Your task to perform on an android device: open chrome privacy settings Image 0: 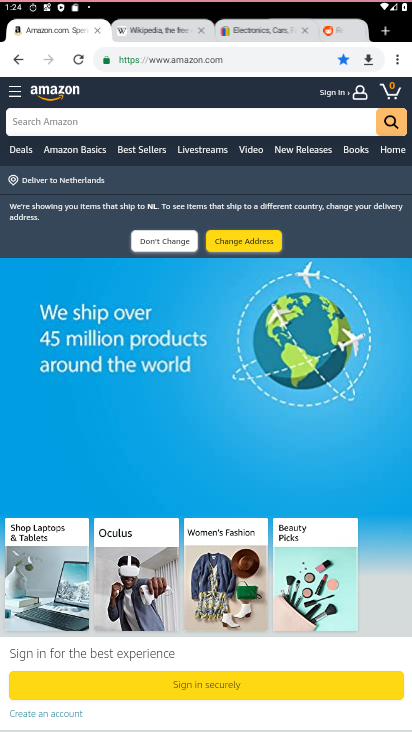
Step 0: press home button
Your task to perform on an android device: open chrome privacy settings Image 1: 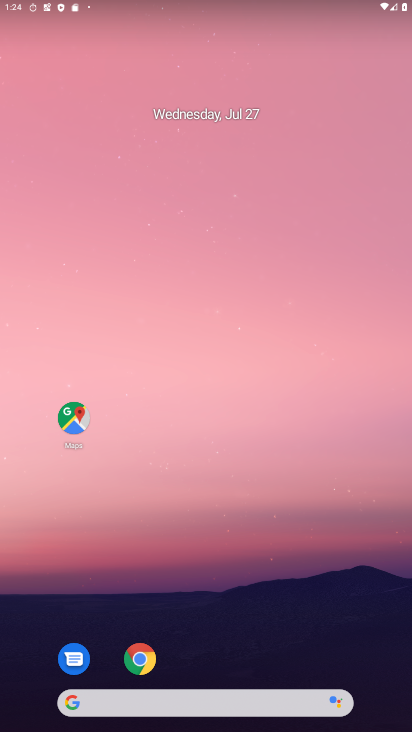
Step 1: drag from (208, 673) to (193, 52)
Your task to perform on an android device: open chrome privacy settings Image 2: 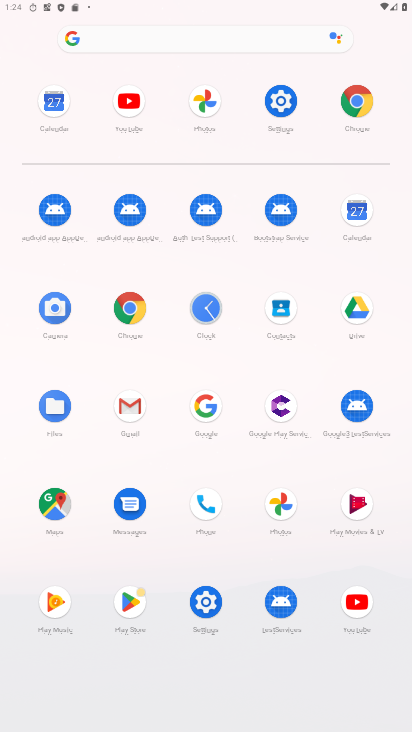
Step 2: click (129, 302)
Your task to perform on an android device: open chrome privacy settings Image 3: 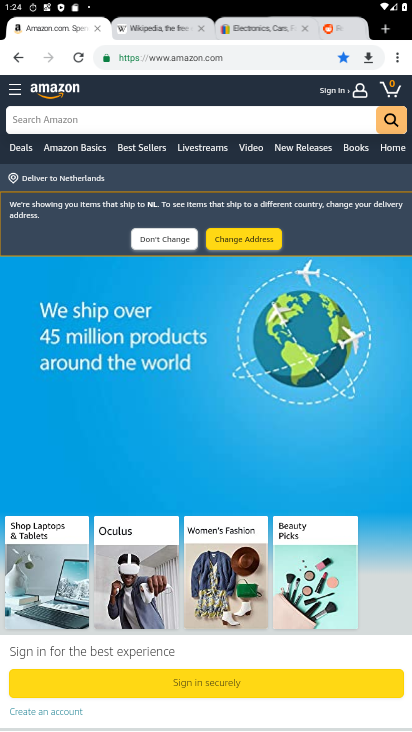
Step 3: click (394, 55)
Your task to perform on an android device: open chrome privacy settings Image 4: 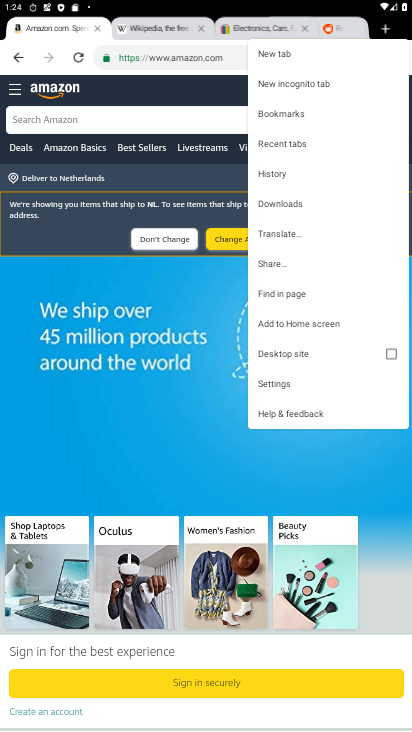
Step 4: click (295, 383)
Your task to perform on an android device: open chrome privacy settings Image 5: 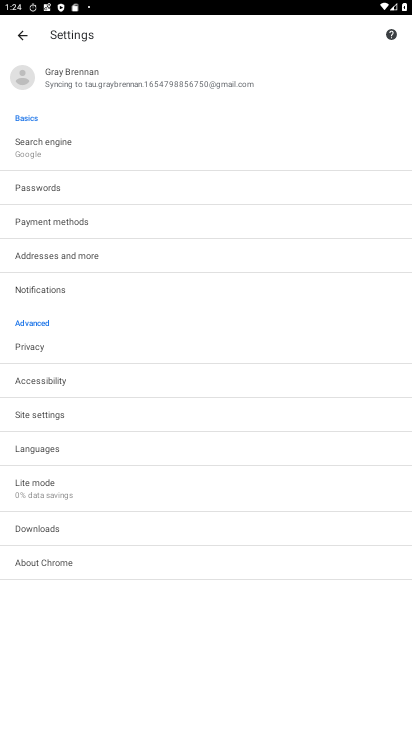
Step 5: click (67, 343)
Your task to perform on an android device: open chrome privacy settings Image 6: 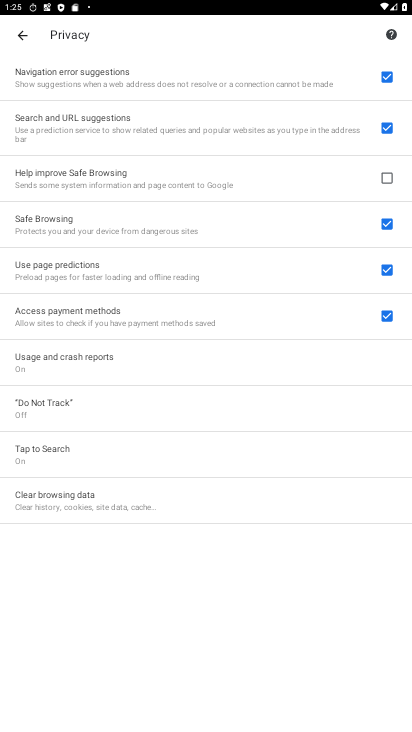
Step 6: task complete